Your task to perform on an android device: Open notification settings Image 0: 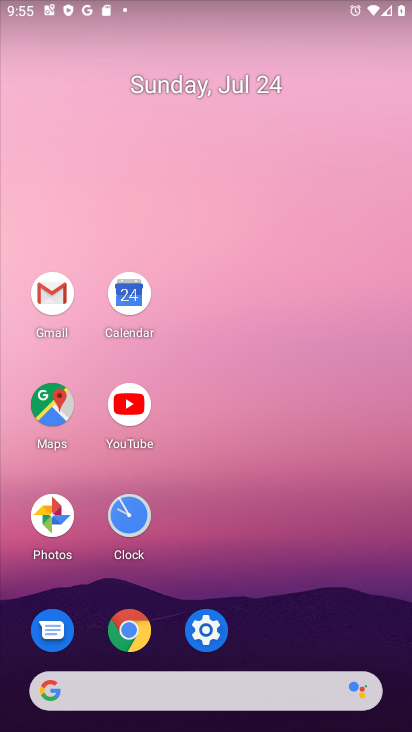
Step 0: click (216, 627)
Your task to perform on an android device: Open notification settings Image 1: 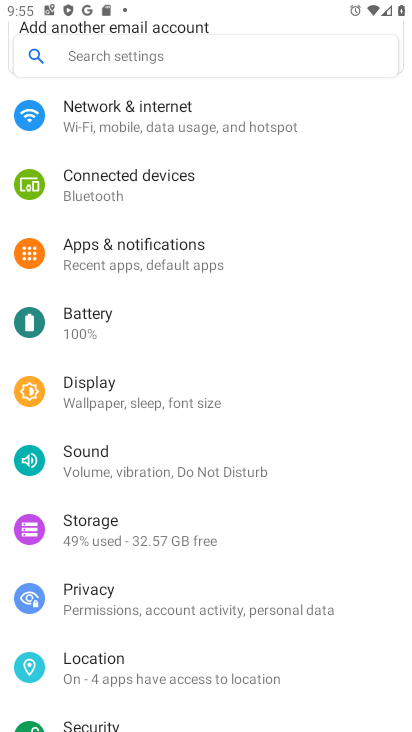
Step 1: click (142, 243)
Your task to perform on an android device: Open notification settings Image 2: 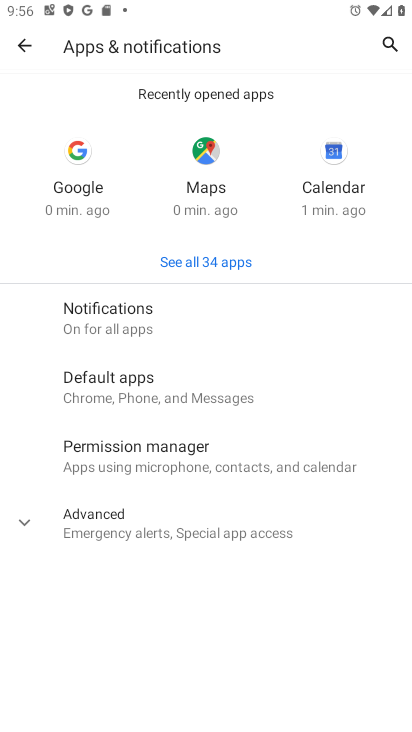
Step 2: task complete